Your task to perform on an android device: View the shopping cart on walmart. Search for jbl charge 4 on walmart, select the first entry, add it to the cart, then select checkout. Image 0: 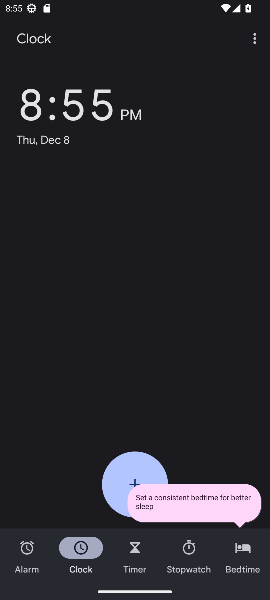
Step 0: press home button
Your task to perform on an android device: View the shopping cart on walmart. Search for jbl charge 4 on walmart, select the first entry, add it to the cart, then select checkout. Image 1: 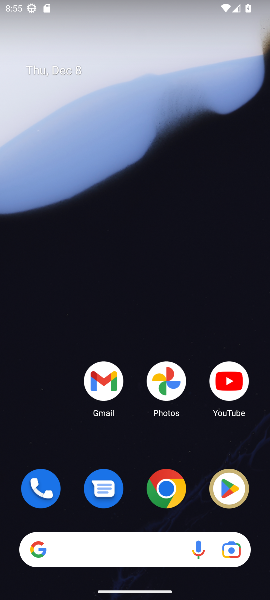
Step 1: drag from (121, 538) to (104, 251)
Your task to perform on an android device: View the shopping cart on walmart. Search for jbl charge 4 on walmart, select the first entry, add it to the cart, then select checkout. Image 2: 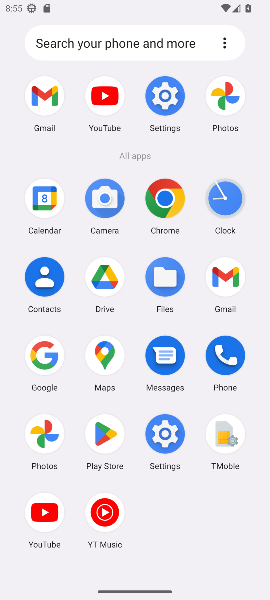
Step 2: click (38, 357)
Your task to perform on an android device: View the shopping cart on walmart. Search for jbl charge 4 on walmart, select the first entry, add it to the cart, then select checkout. Image 3: 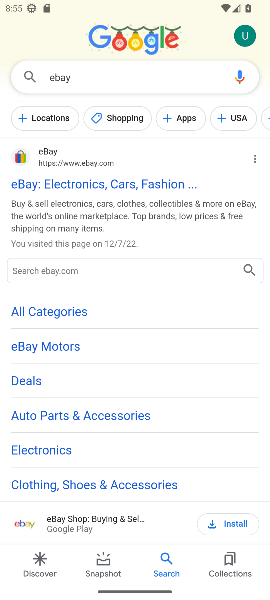
Step 3: click (68, 81)
Your task to perform on an android device: View the shopping cart on walmart. Search for jbl charge 4 on walmart, select the first entry, add it to the cart, then select checkout. Image 4: 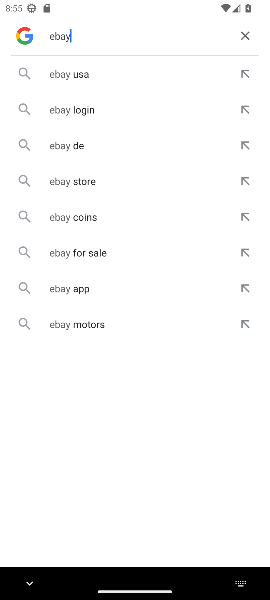
Step 4: click (245, 33)
Your task to perform on an android device: View the shopping cart on walmart. Search for jbl charge 4 on walmart, select the first entry, add it to the cart, then select checkout. Image 5: 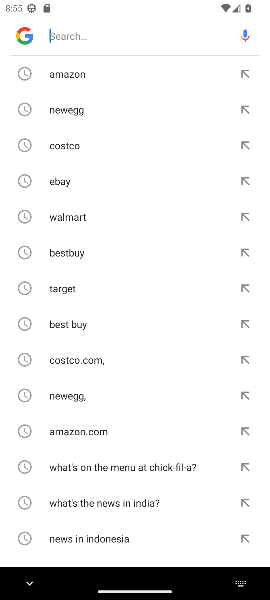
Step 5: click (63, 218)
Your task to perform on an android device: View the shopping cart on walmart. Search for jbl charge 4 on walmart, select the first entry, add it to the cart, then select checkout. Image 6: 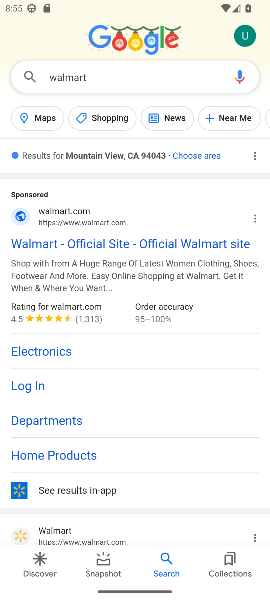
Step 6: click (64, 240)
Your task to perform on an android device: View the shopping cart on walmart. Search for jbl charge 4 on walmart, select the first entry, add it to the cart, then select checkout. Image 7: 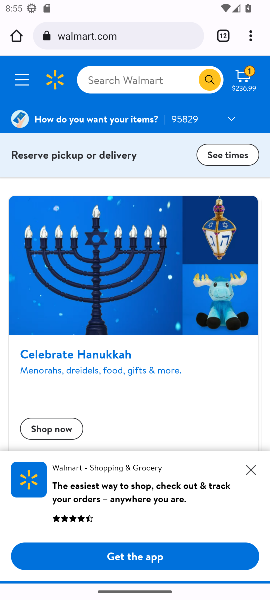
Step 7: click (245, 75)
Your task to perform on an android device: View the shopping cart on walmart. Search for jbl charge 4 on walmart, select the first entry, add it to the cart, then select checkout. Image 8: 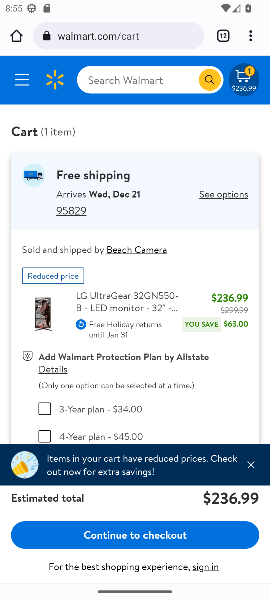
Step 8: click (117, 84)
Your task to perform on an android device: View the shopping cart on walmart. Search for jbl charge 4 on walmart, select the first entry, add it to the cart, then select checkout. Image 9: 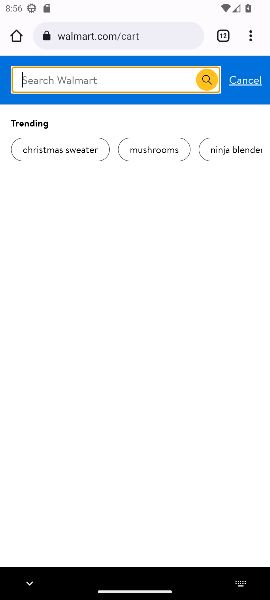
Step 9: type "jbl charge 4"
Your task to perform on an android device: View the shopping cart on walmart. Search for jbl charge 4 on walmart, select the first entry, add it to the cart, then select checkout. Image 10: 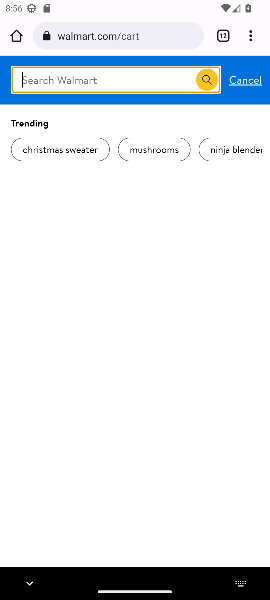
Step 10: click (207, 78)
Your task to perform on an android device: View the shopping cart on walmart. Search for jbl charge 4 on walmart, select the first entry, add it to the cart, then select checkout. Image 11: 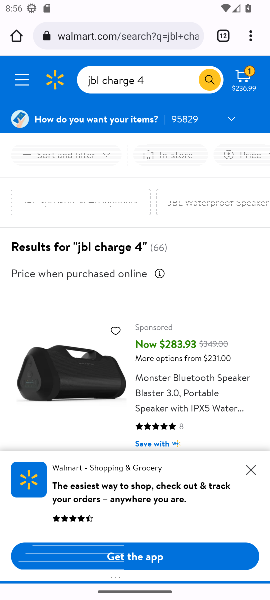
Step 11: click (250, 470)
Your task to perform on an android device: View the shopping cart on walmart. Search for jbl charge 4 on walmart, select the first entry, add it to the cart, then select checkout. Image 12: 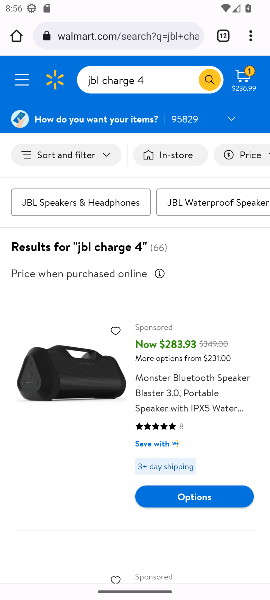
Step 12: drag from (205, 462) to (210, 262)
Your task to perform on an android device: View the shopping cart on walmart. Search for jbl charge 4 on walmart, select the first entry, add it to the cart, then select checkout. Image 13: 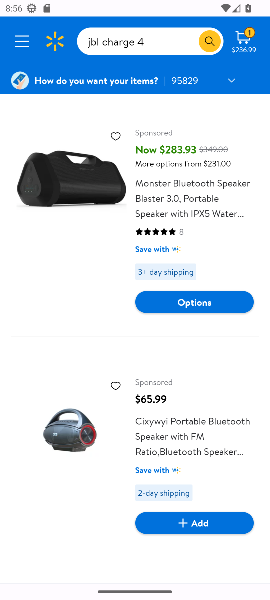
Step 13: click (206, 303)
Your task to perform on an android device: View the shopping cart on walmart. Search for jbl charge 4 on walmart, select the first entry, add it to the cart, then select checkout. Image 14: 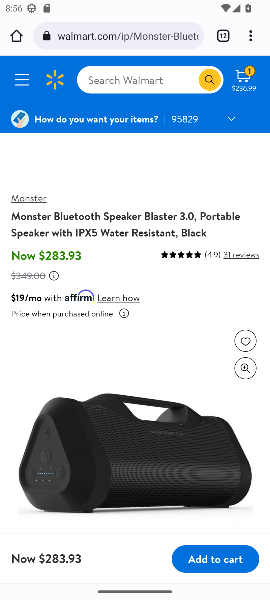
Step 14: click (227, 561)
Your task to perform on an android device: View the shopping cart on walmart. Search for jbl charge 4 on walmart, select the first entry, add it to the cart, then select checkout. Image 15: 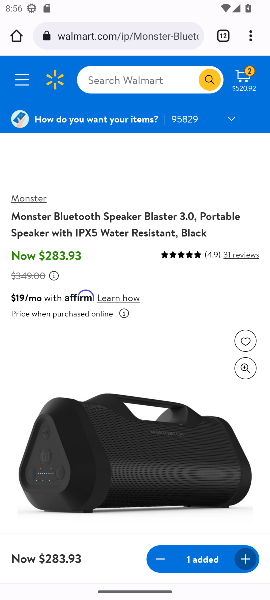
Step 15: click (243, 70)
Your task to perform on an android device: View the shopping cart on walmart. Search for jbl charge 4 on walmart, select the first entry, add it to the cart, then select checkout. Image 16: 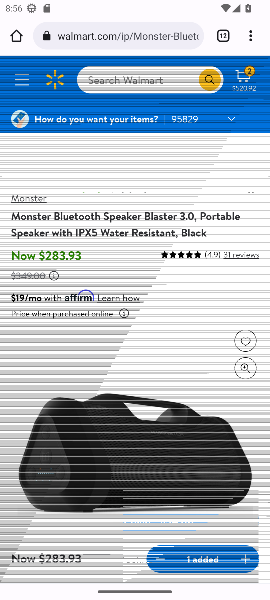
Step 16: drag from (200, 413) to (206, 202)
Your task to perform on an android device: View the shopping cart on walmart. Search for jbl charge 4 on walmart, select the first entry, add it to the cart, then select checkout. Image 17: 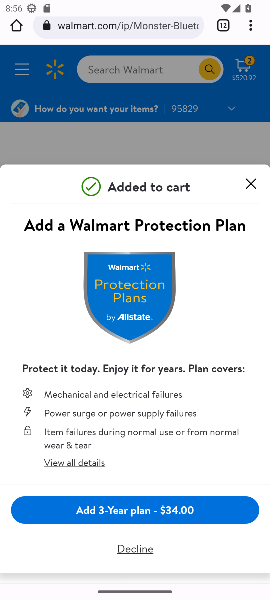
Step 17: click (251, 175)
Your task to perform on an android device: View the shopping cart on walmart. Search for jbl charge 4 on walmart, select the first entry, add it to the cart, then select checkout. Image 18: 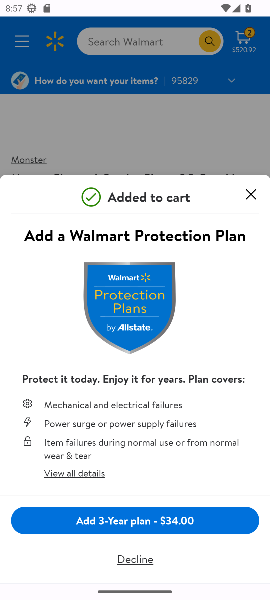
Step 18: click (248, 42)
Your task to perform on an android device: View the shopping cart on walmart. Search for jbl charge 4 on walmart, select the first entry, add it to the cart, then select checkout. Image 19: 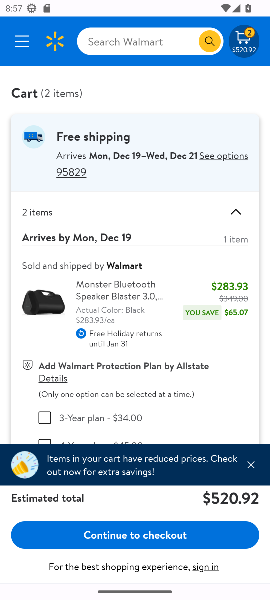
Step 19: click (120, 537)
Your task to perform on an android device: View the shopping cart on walmart. Search for jbl charge 4 on walmart, select the first entry, add it to the cart, then select checkout. Image 20: 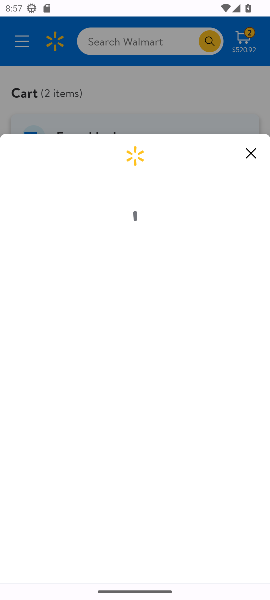
Step 20: task complete